Your task to perform on an android device: Go to Yahoo.com Image 0: 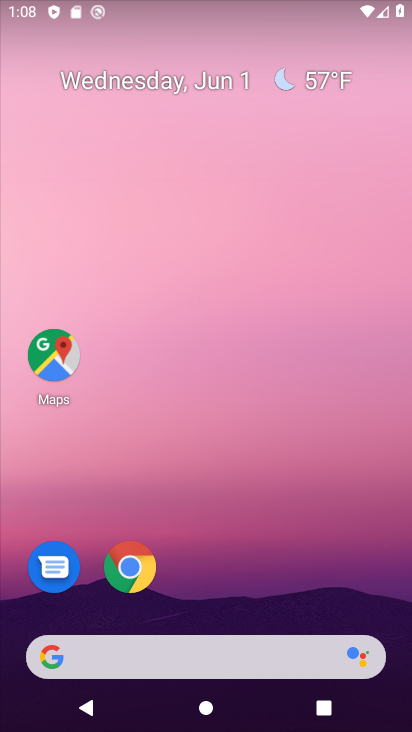
Step 0: click (146, 562)
Your task to perform on an android device: Go to Yahoo.com Image 1: 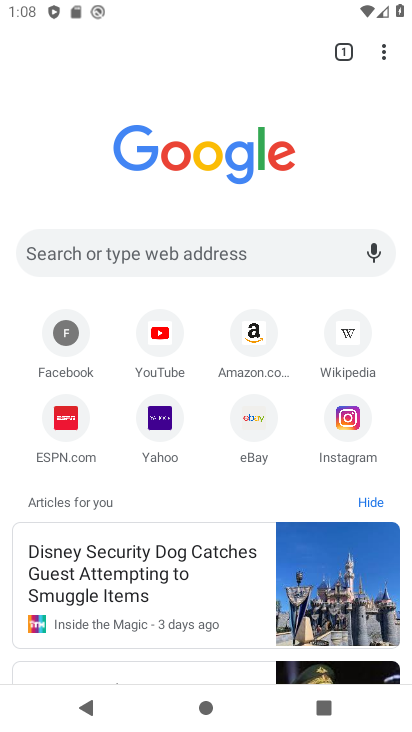
Step 1: click (161, 439)
Your task to perform on an android device: Go to Yahoo.com Image 2: 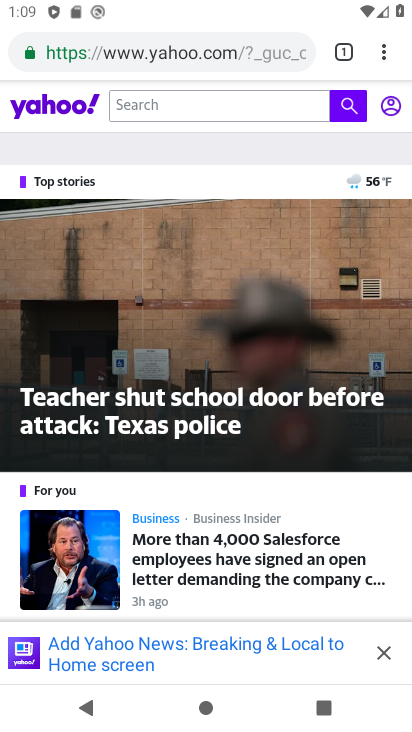
Step 2: task complete